Your task to perform on an android device: Is it going to rain today? Image 0: 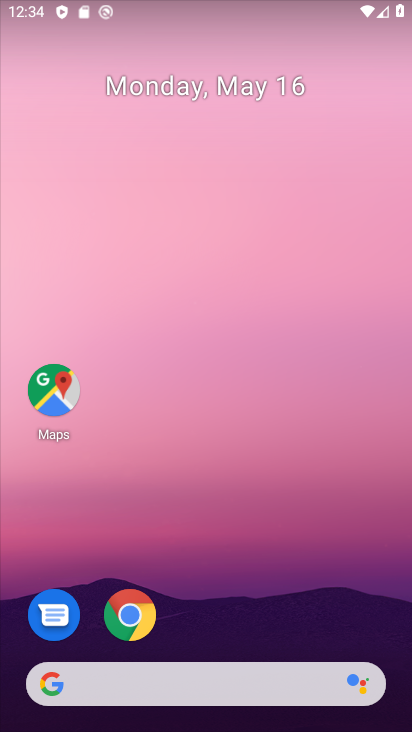
Step 0: drag from (313, 576) to (280, 26)
Your task to perform on an android device: Is it going to rain today? Image 1: 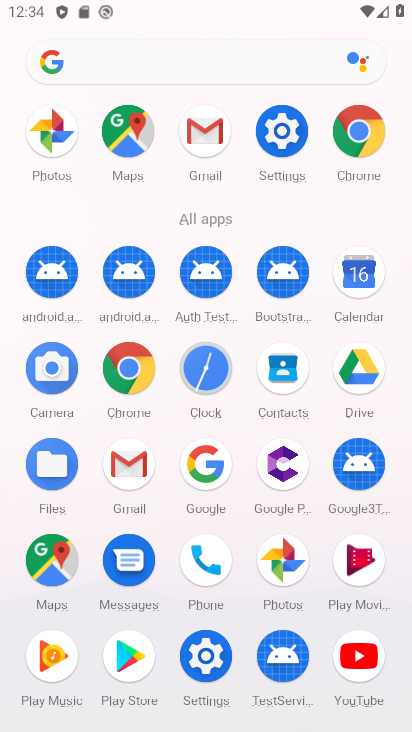
Step 1: click (357, 116)
Your task to perform on an android device: Is it going to rain today? Image 2: 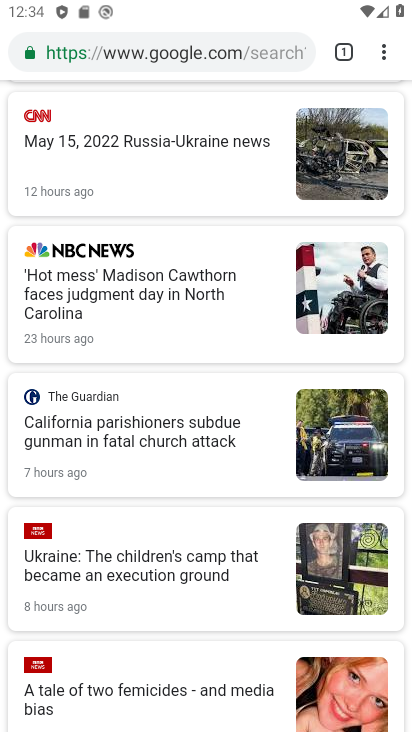
Step 2: drag from (183, 140) to (171, 697)
Your task to perform on an android device: Is it going to rain today? Image 3: 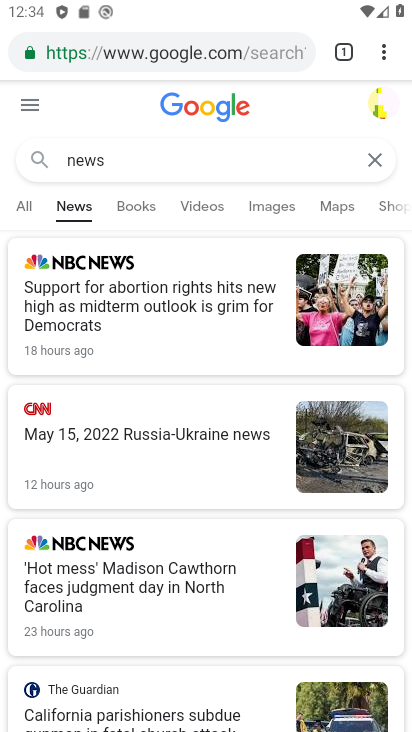
Step 3: click (212, 166)
Your task to perform on an android device: Is it going to rain today? Image 4: 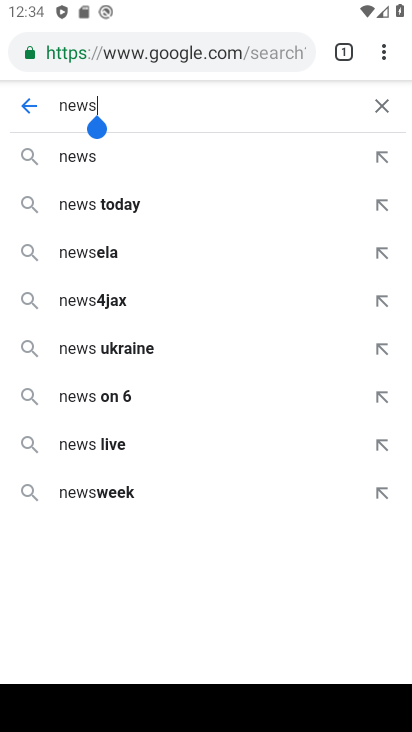
Step 4: click (380, 105)
Your task to perform on an android device: Is it going to rain today? Image 5: 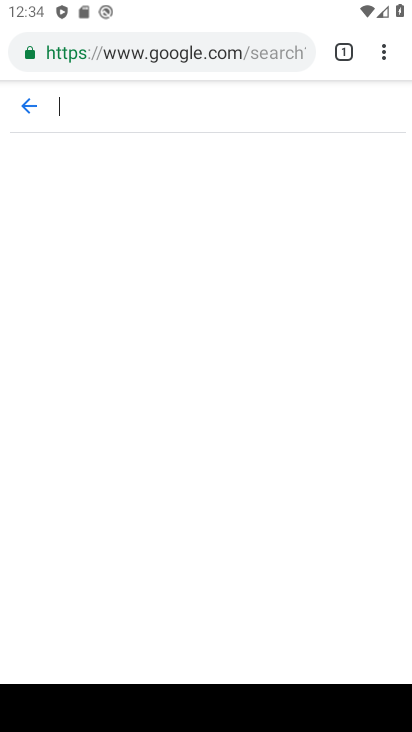
Step 5: type "weather"
Your task to perform on an android device: Is it going to rain today? Image 6: 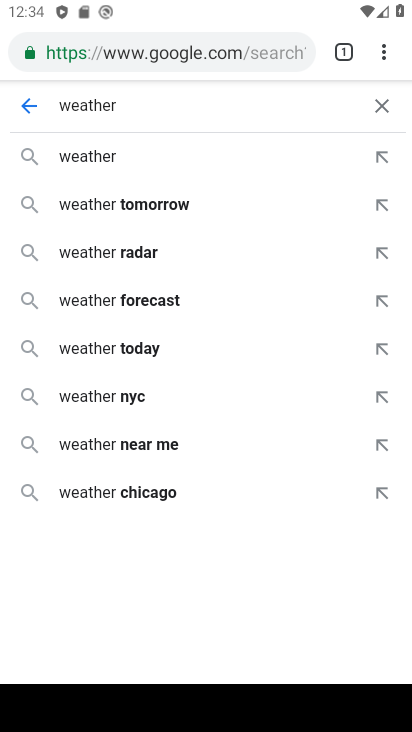
Step 6: click (69, 158)
Your task to perform on an android device: Is it going to rain today? Image 7: 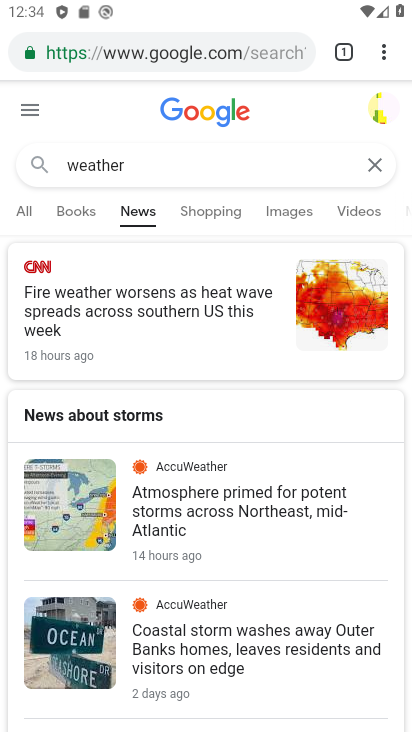
Step 7: click (20, 208)
Your task to perform on an android device: Is it going to rain today? Image 8: 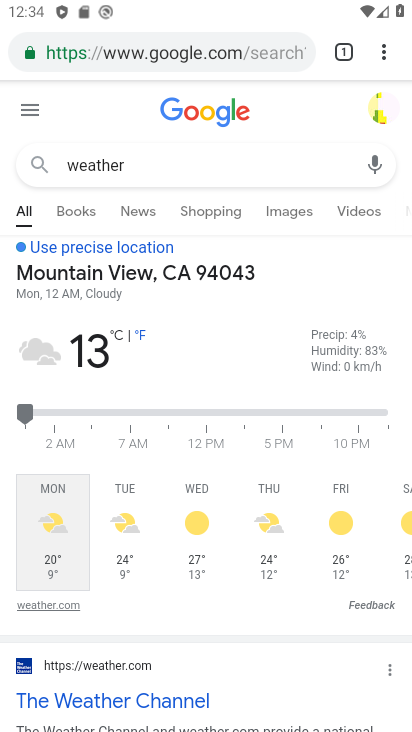
Step 8: task complete